Your task to perform on an android device: Clear the cart on walmart.com. Image 0: 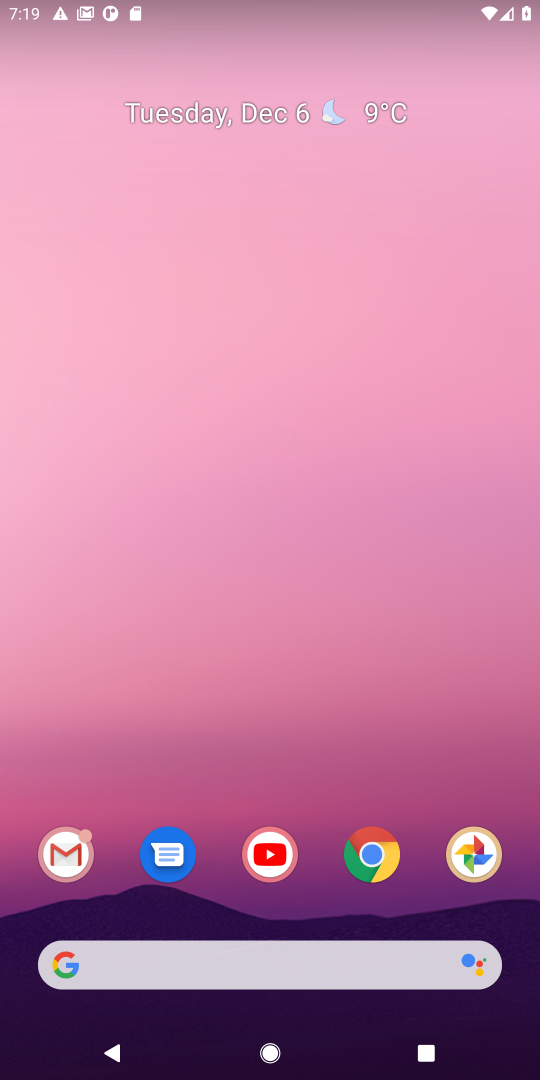
Step 0: click (382, 855)
Your task to perform on an android device: Clear the cart on walmart.com. Image 1: 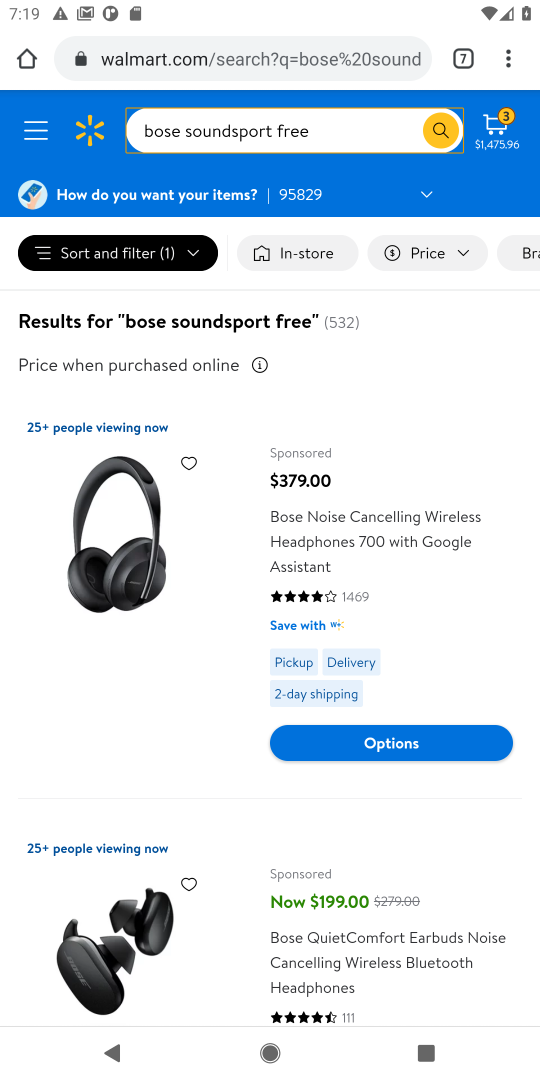
Step 1: click (504, 130)
Your task to perform on an android device: Clear the cart on walmart.com. Image 2: 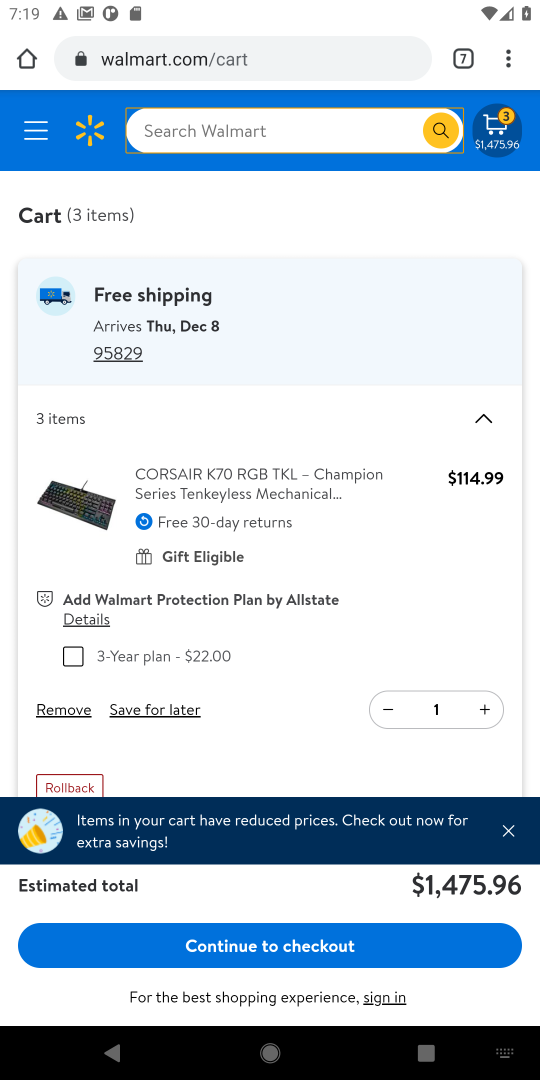
Step 2: click (65, 705)
Your task to perform on an android device: Clear the cart on walmart.com. Image 3: 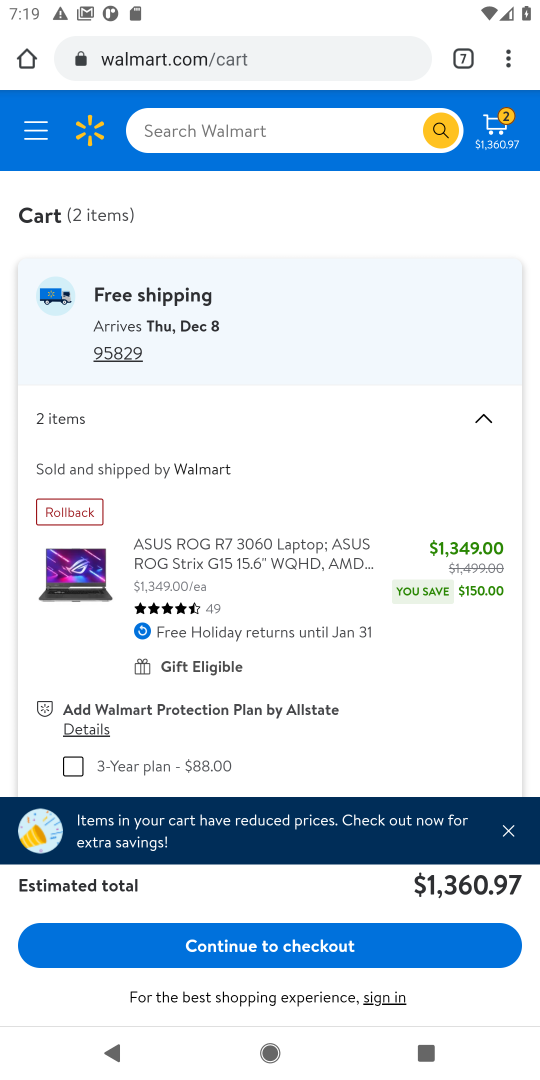
Step 3: drag from (142, 737) to (22, 425)
Your task to perform on an android device: Clear the cart on walmart.com. Image 4: 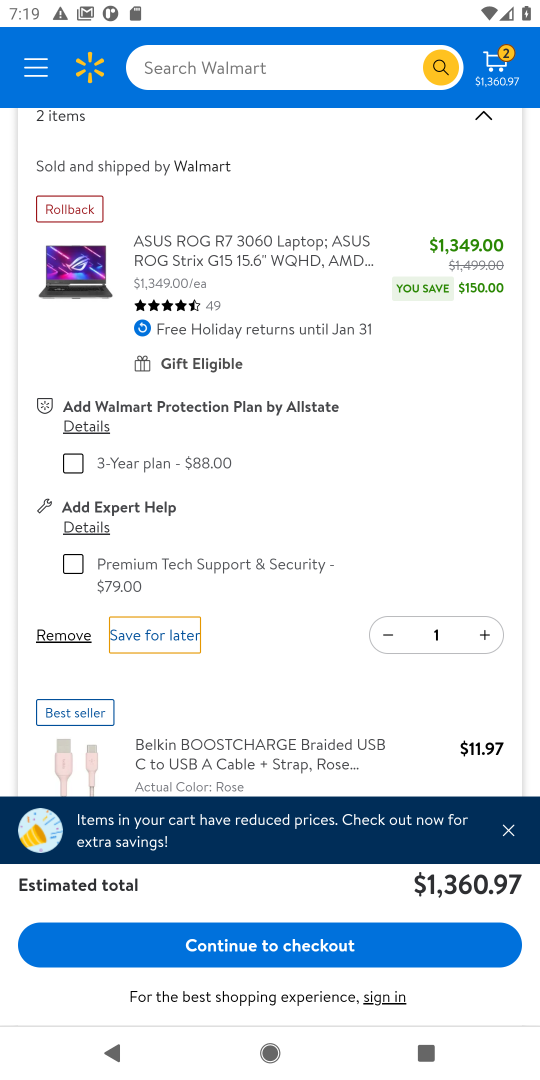
Step 4: click (47, 637)
Your task to perform on an android device: Clear the cart on walmart.com. Image 5: 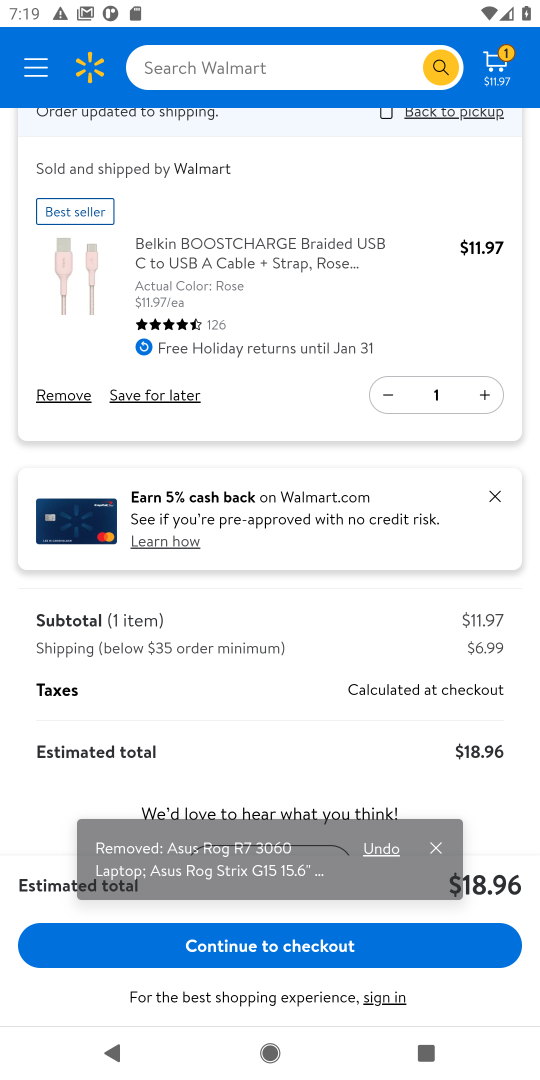
Step 5: click (69, 398)
Your task to perform on an android device: Clear the cart on walmart.com. Image 6: 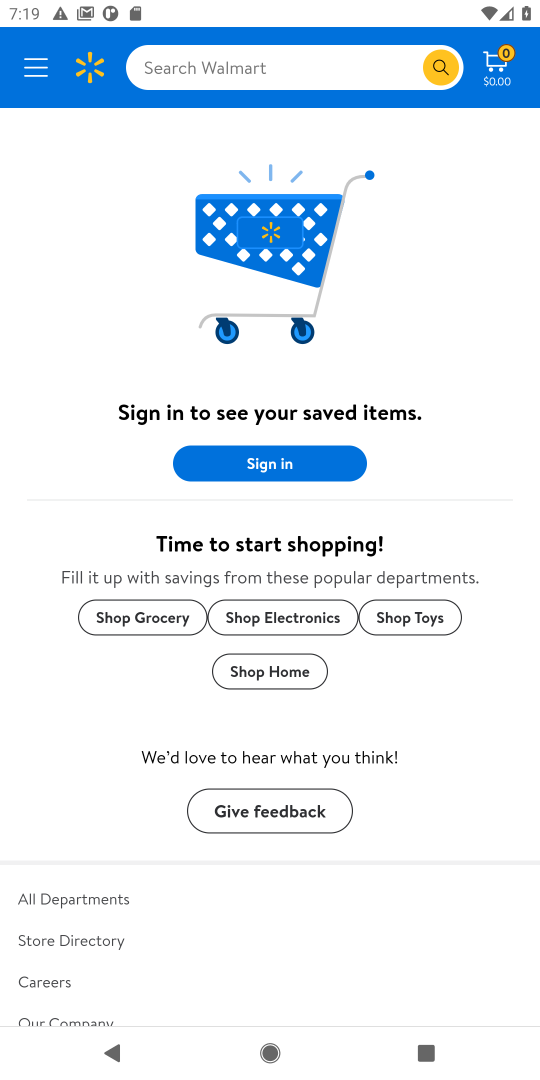
Step 6: task complete